Your task to perform on an android device: check google app version Image 0: 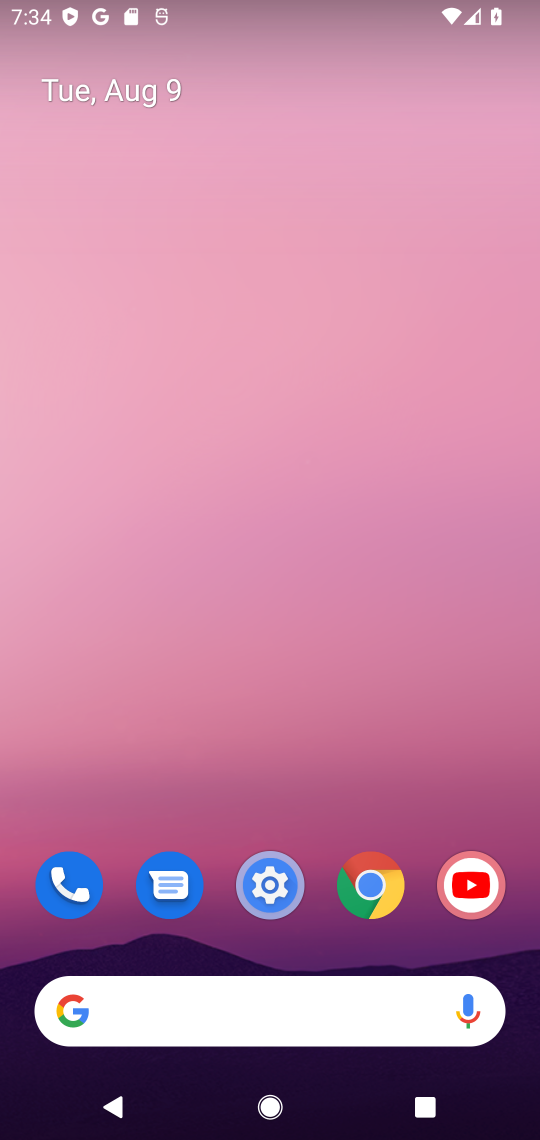
Step 0: click (269, 872)
Your task to perform on an android device: check google app version Image 1: 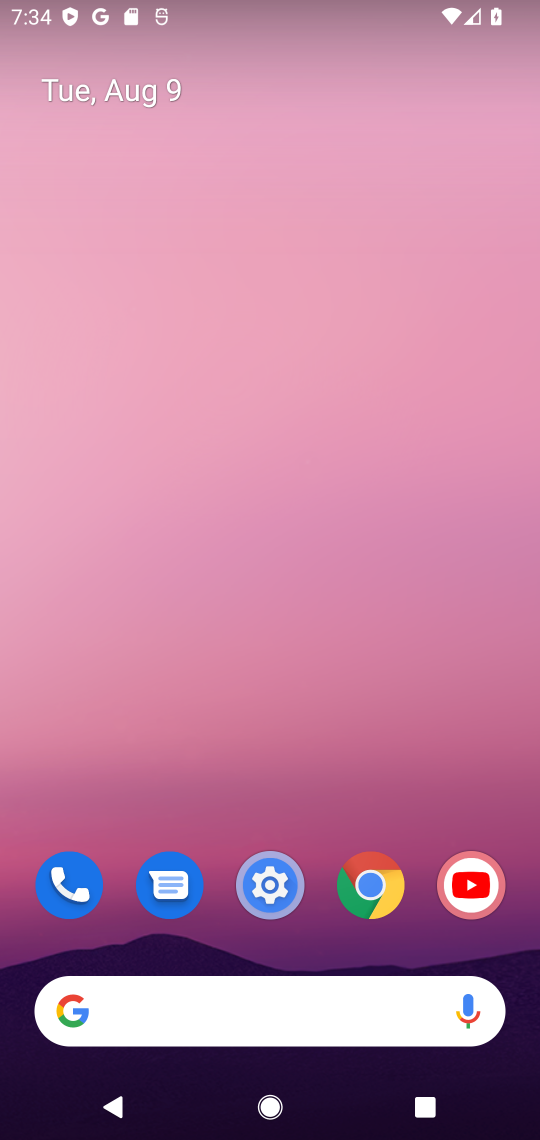
Step 1: click (307, 1029)
Your task to perform on an android device: check google app version Image 2: 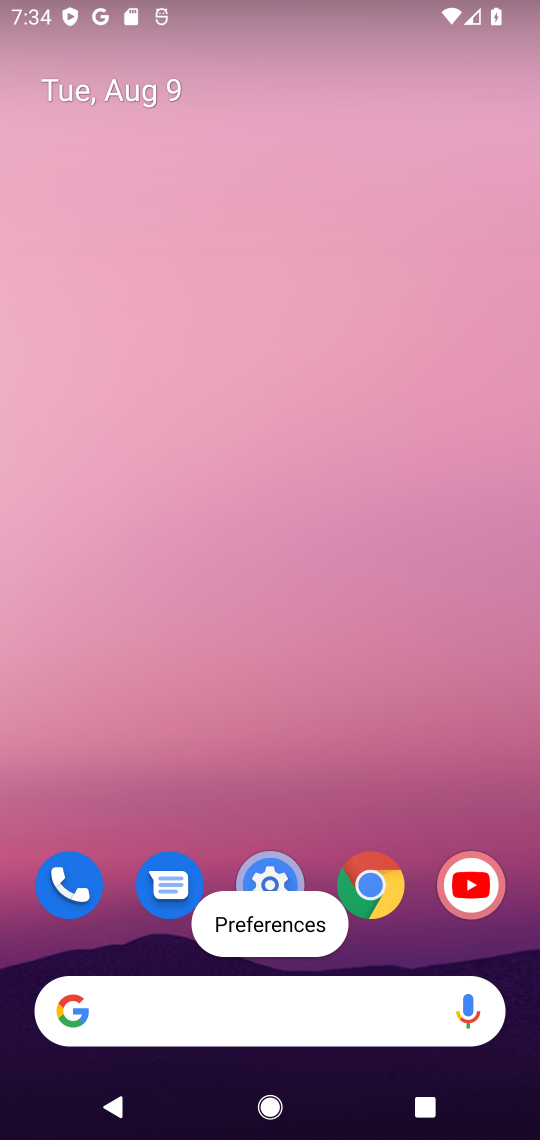
Step 2: click (76, 1009)
Your task to perform on an android device: check google app version Image 3: 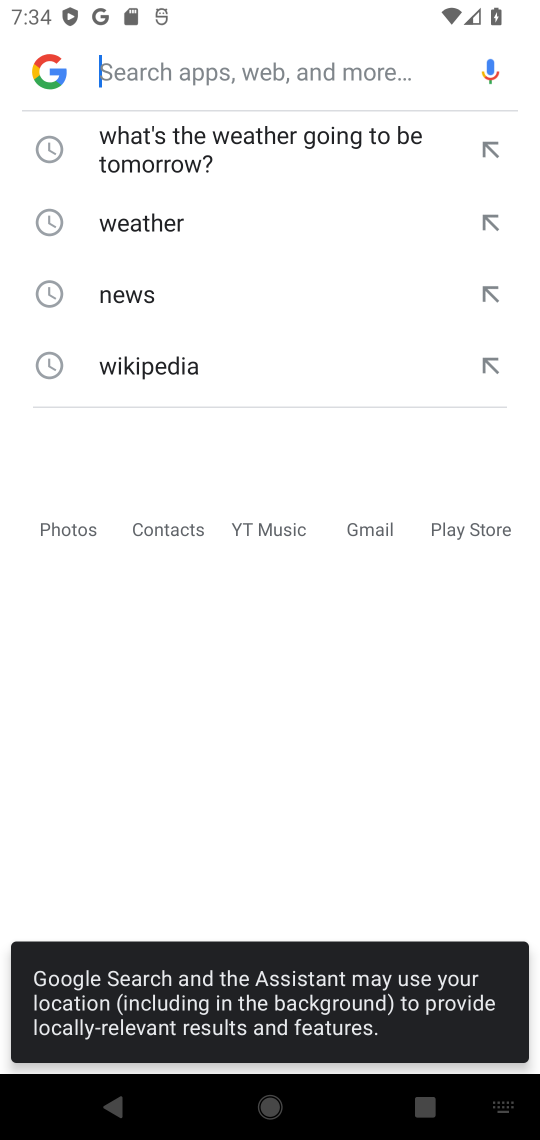
Step 3: click (62, 77)
Your task to perform on an android device: check google app version Image 4: 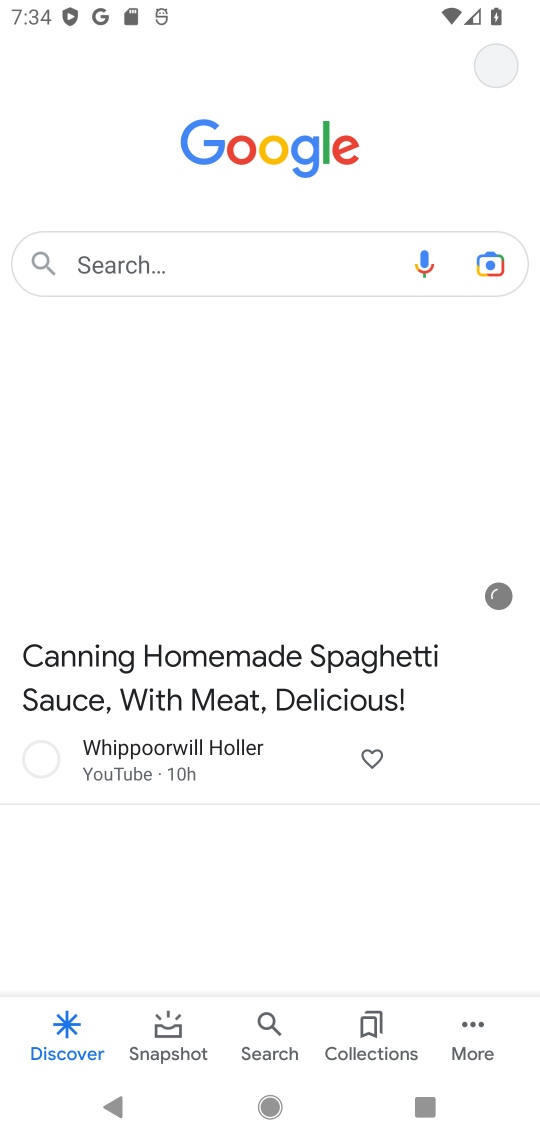
Step 4: click (486, 56)
Your task to perform on an android device: check google app version Image 5: 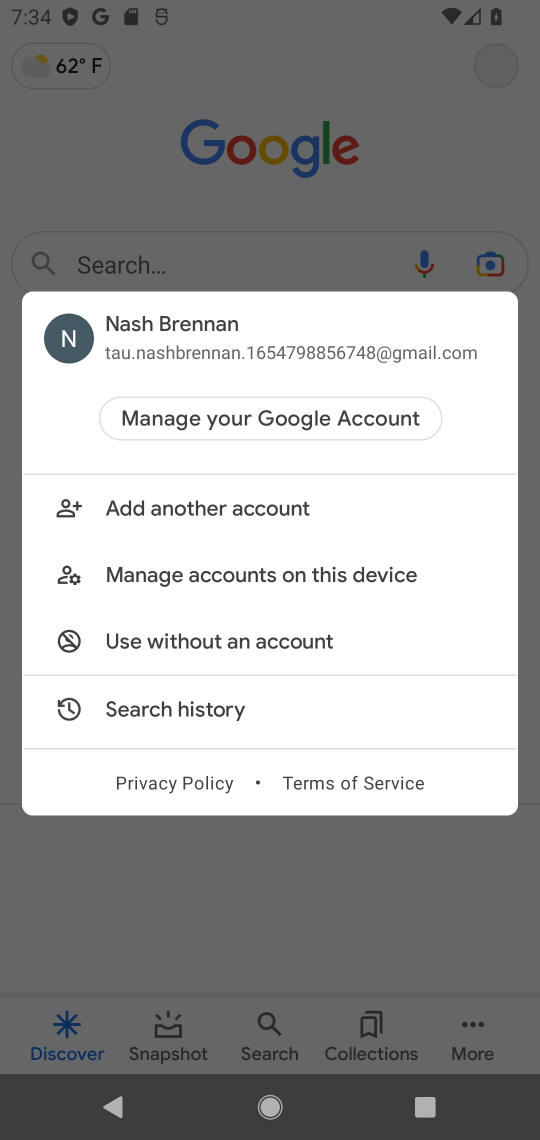
Step 5: click (169, 880)
Your task to perform on an android device: check google app version Image 6: 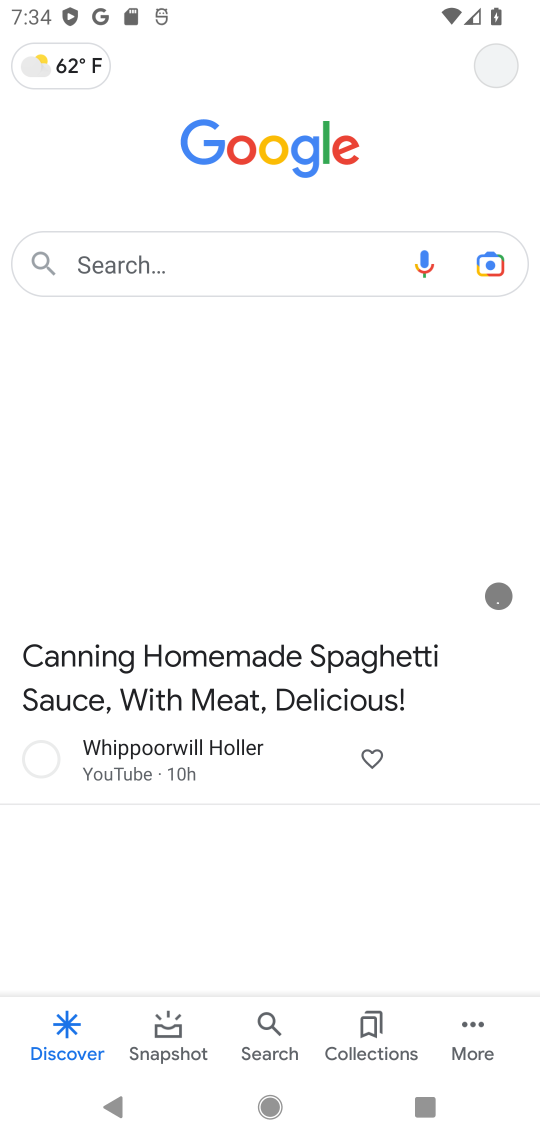
Step 6: click (467, 1018)
Your task to perform on an android device: check google app version Image 7: 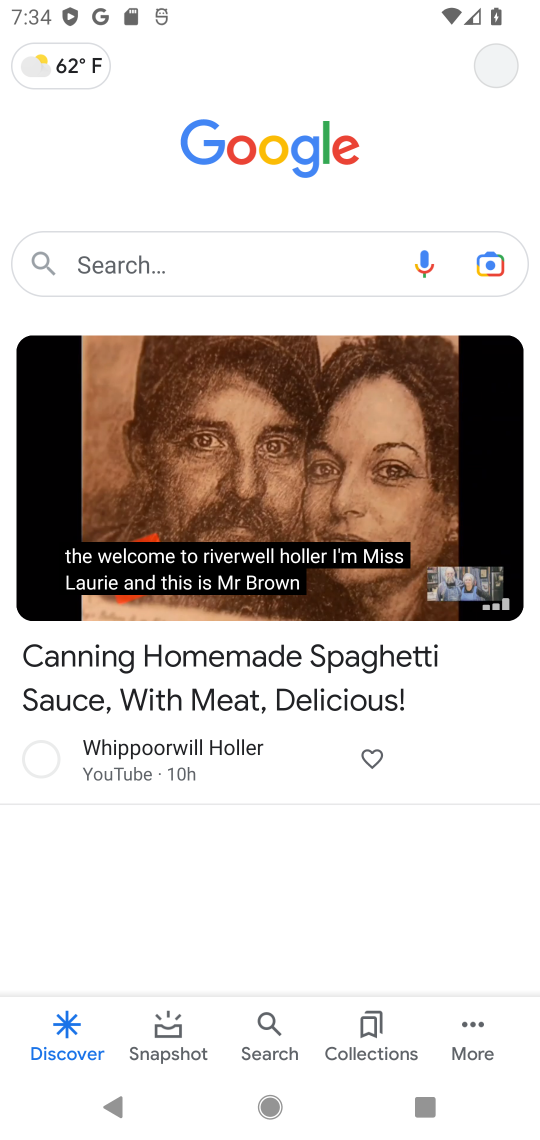
Step 7: click (471, 1032)
Your task to perform on an android device: check google app version Image 8: 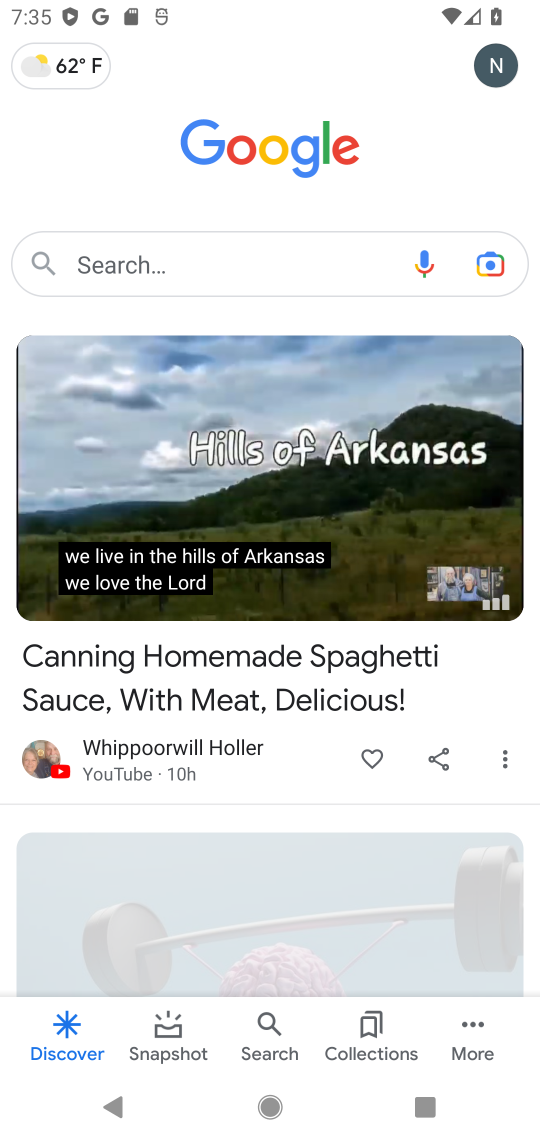
Step 8: click (471, 1021)
Your task to perform on an android device: check google app version Image 9: 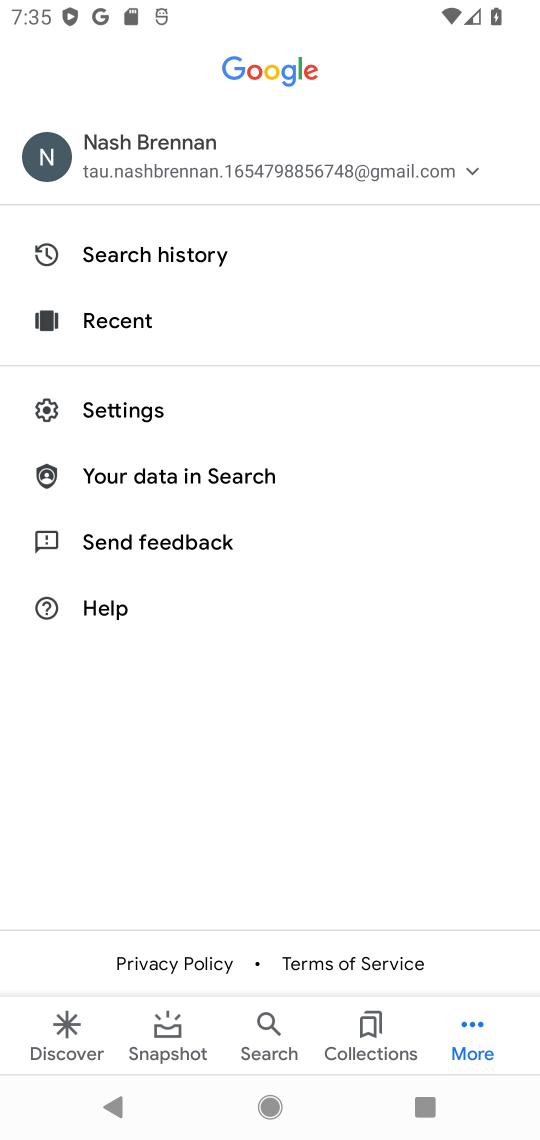
Step 9: click (117, 399)
Your task to perform on an android device: check google app version Image 10: 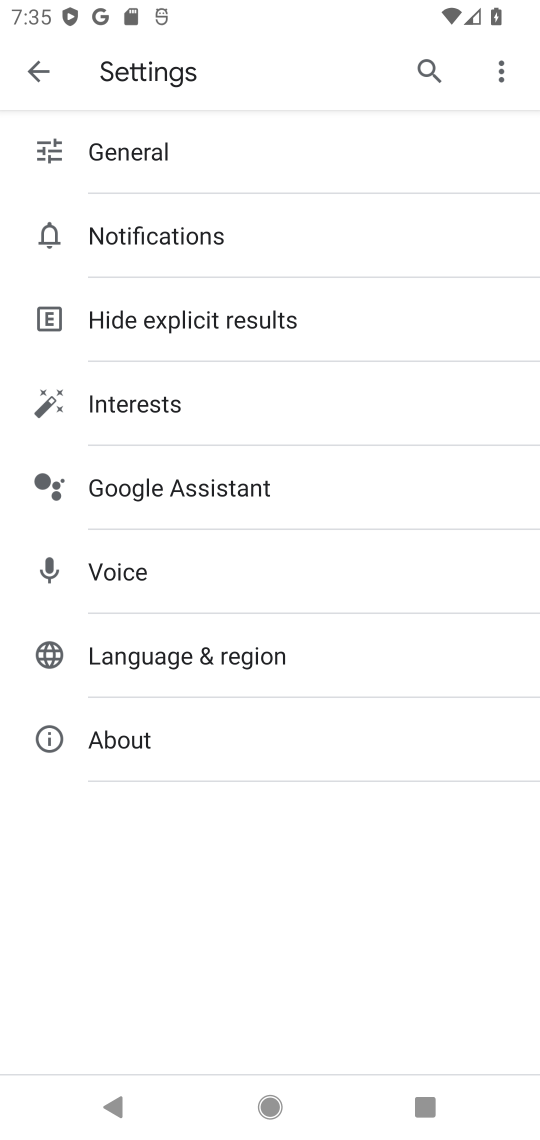
Step 10: click (123, 747)
Your task to perform on an android device: check google app version Image 11: 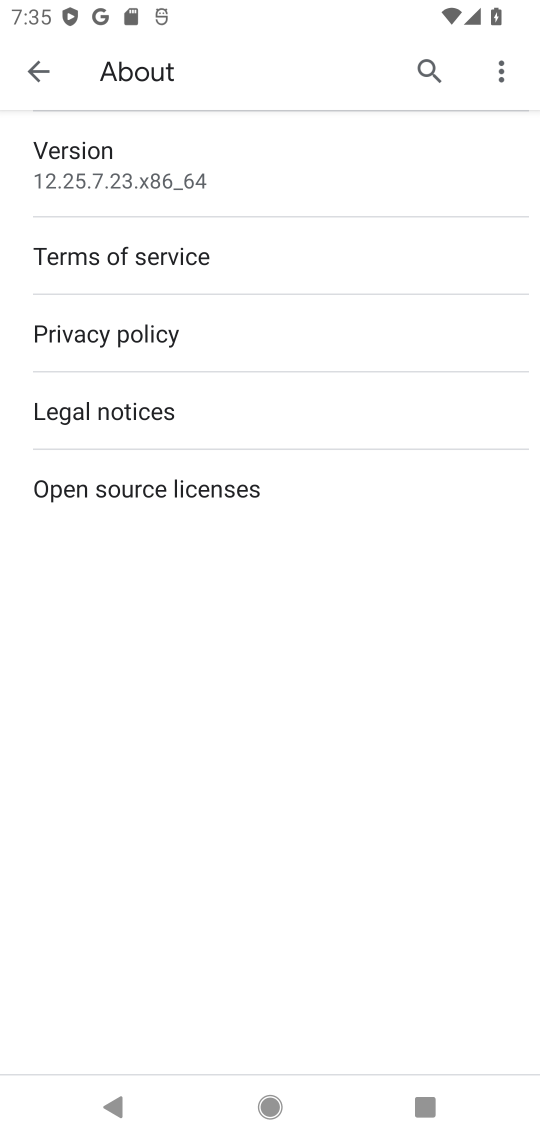
Step 11: task complete